Your task to perform on an android device: turn on bluetooth scan Image 0: 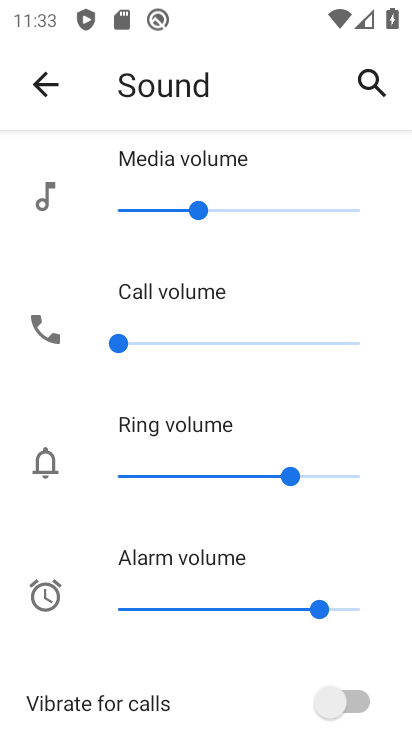
Step 0: press home button
Your task to perform on an android device: turn on bluetooth scan Image 1: 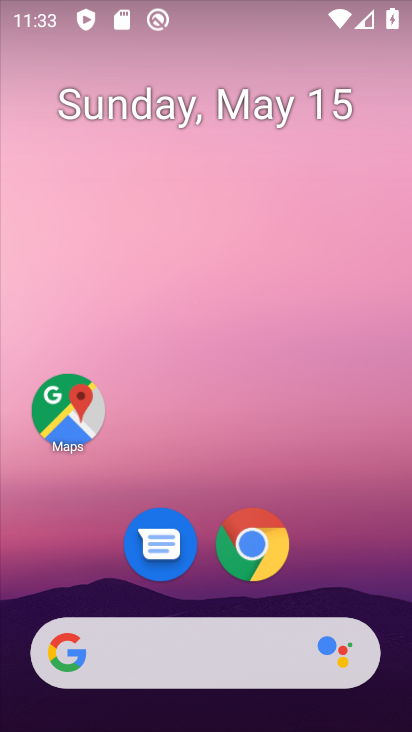
Step 1: drag from (343, 575) to (391, 160)
Your task to perform on an android device: turn on bluetooth scan Image 2: 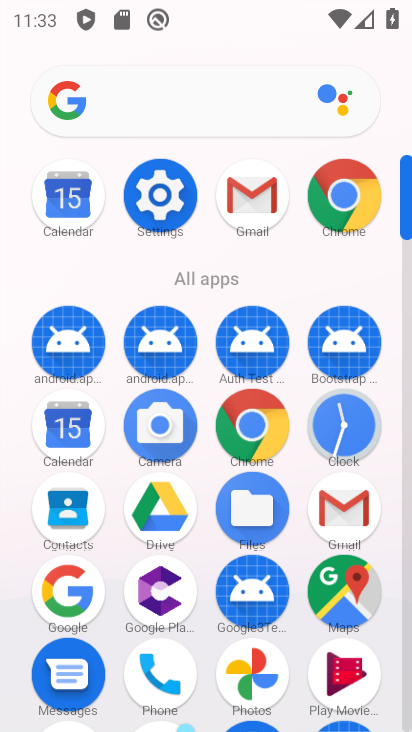
Step 2: click (167, 198)
Your task to perform on an android device: turn on bluetooth scan Image 3: 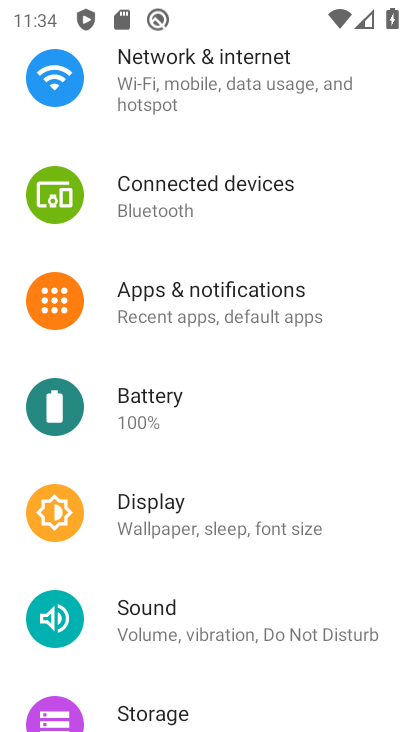
Step 3: drag from (203, 656) to (183, 243)
Your task to perform on an android device: turn on bluetooth scan Image 4: 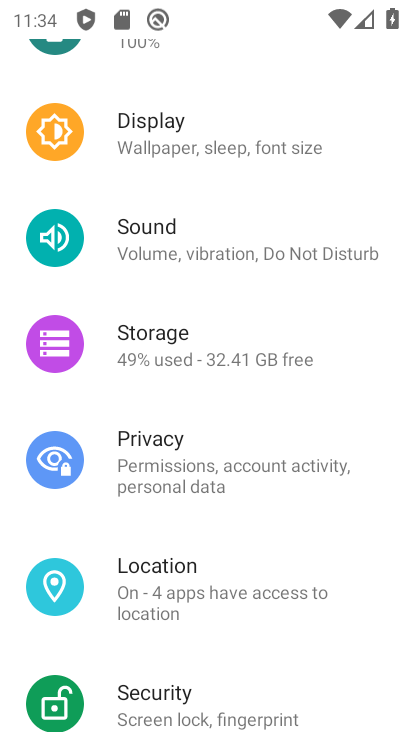
Step 4: click (184, 587)
Your task to perform on an android device: turn on bluetooth scan Image 5: 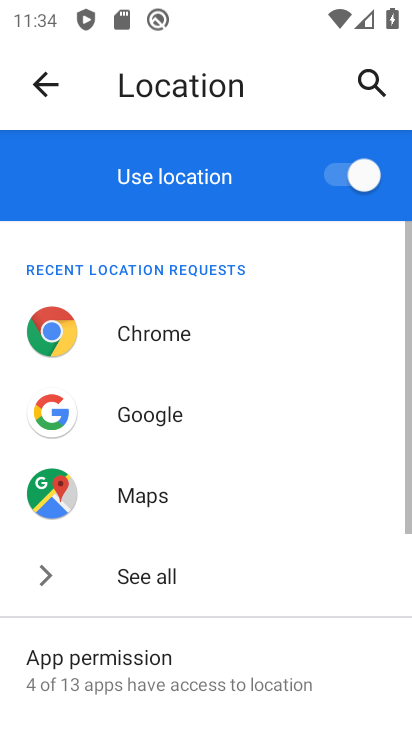
Step 5: drag from (264, 630) to (283, 233)
Your task to perform on an android device: turn on bluetooth scan Image 6: 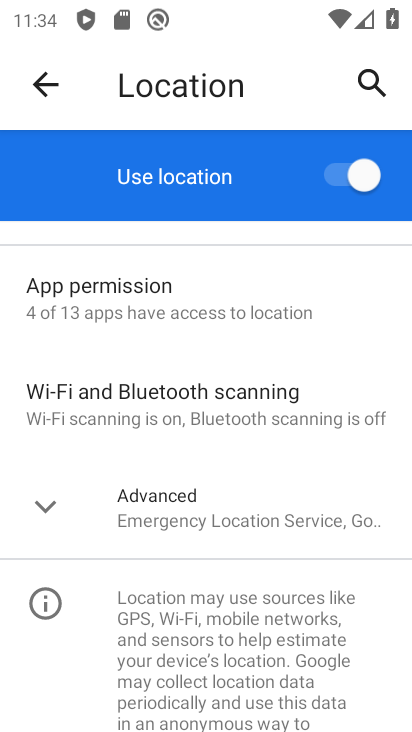
Step 6: click (254, 400)
Your task to perform on an android device: turn on bluetooth scan Image 7: 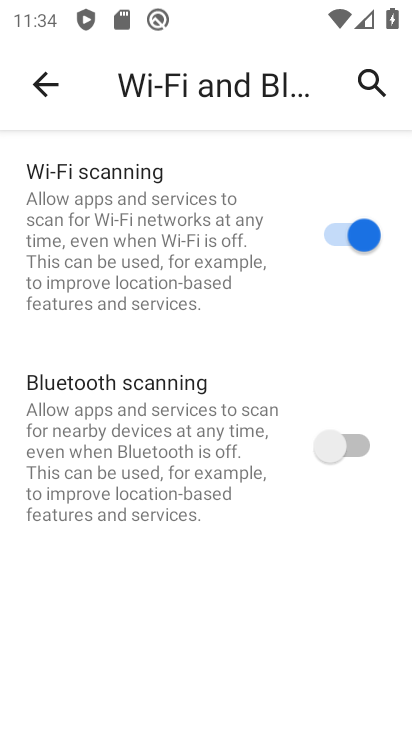
Step 7: click (352, 460)
Your task to perform on an android device: turn on bluetooth scan Image 8: 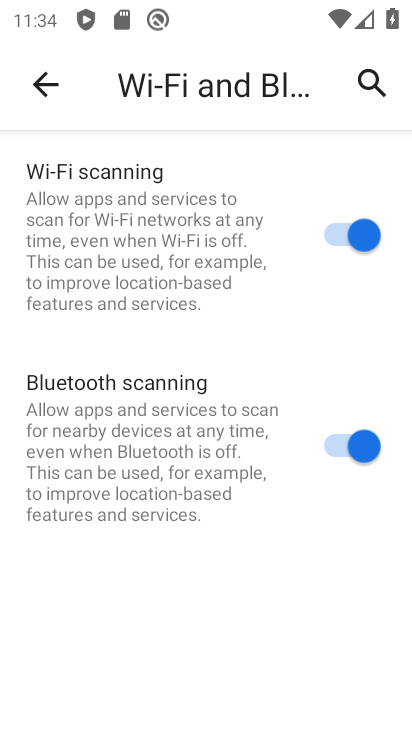
Step 8: task complete